Your task to perform on an android device: What is the news today? Image 0: 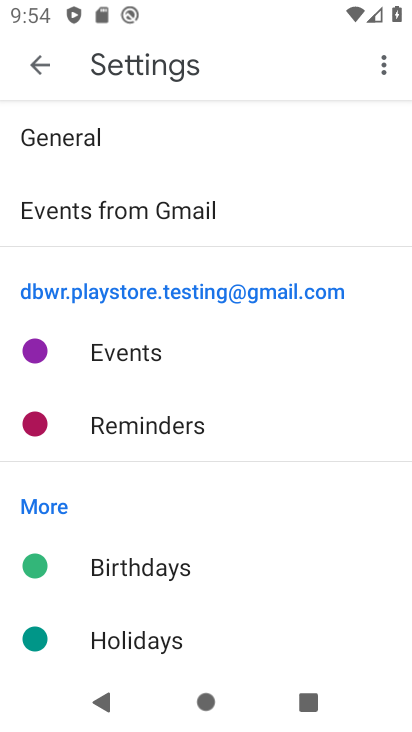
Step 0: press home button
Your task to perform on an android device: What is the news today? Image 1: 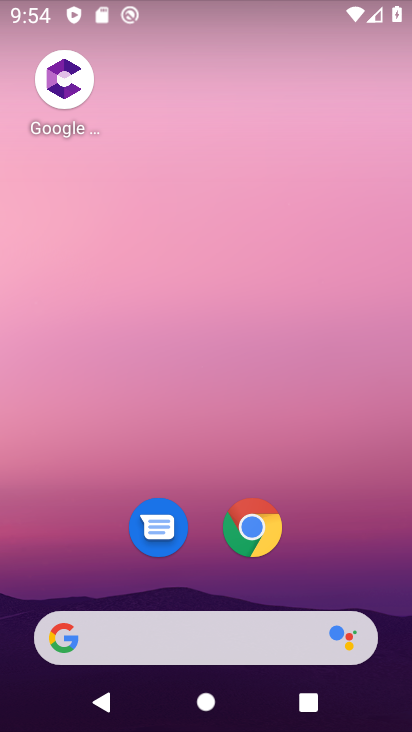
Step 1: click (238, 641)
Your task to perform on an android device: What is the news today? Image 2: 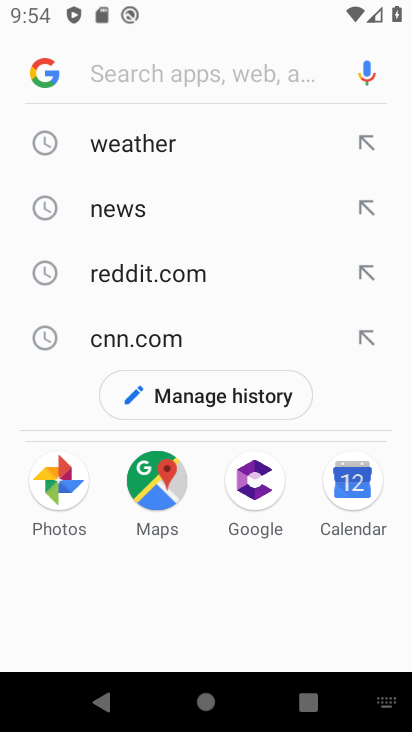
Step 2: type "newstoday"
Your task to perform on an android device: What is the news today? Image 3: 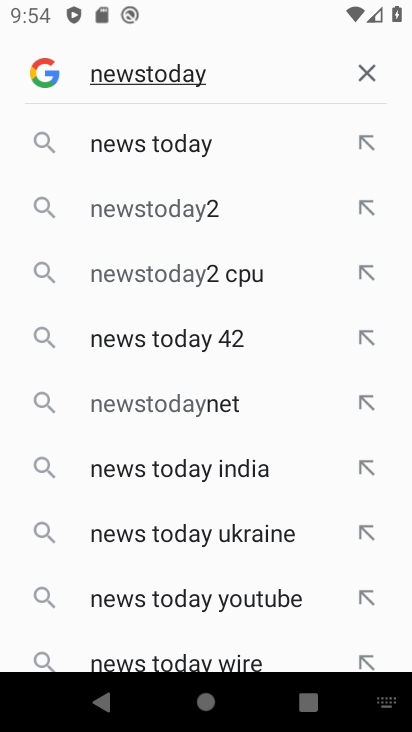
Step 3: click (133, 147)
Your task to perform on an android device: What is the news today? Image 4: 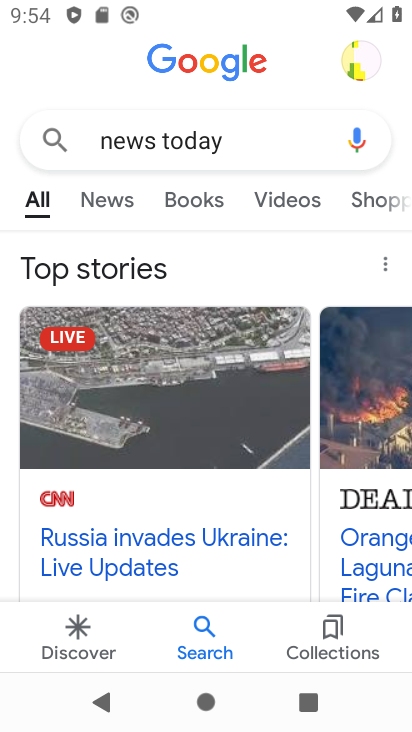
Step 4: task complete